Your task to perform on an android device: check storage Image 0: 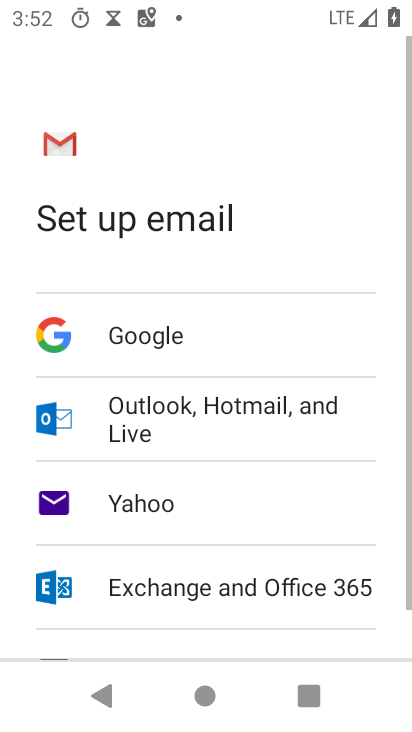
Step 0: press home button
Your task to perform on an android device: check storage Image 1: 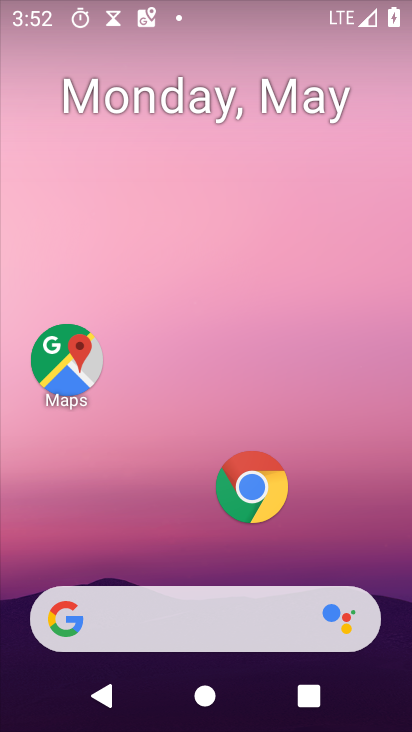
Step 1: drag from (178, 529) to (187, 16)
Your task to perform on an android device: check storage Image 2: 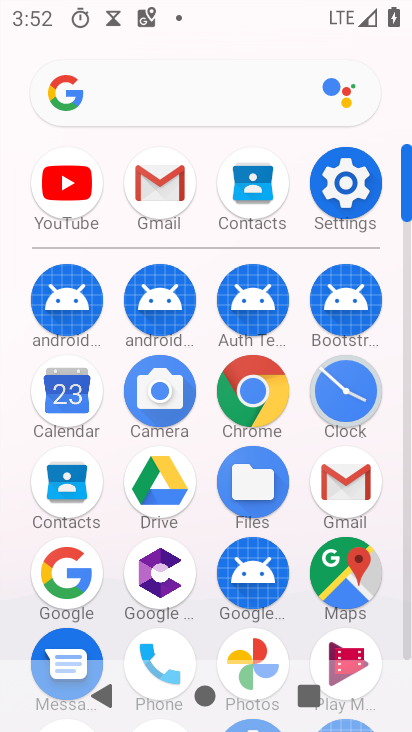
Step 2: click (347, 184)
Your task to perform on an android device: check storage Image 3: 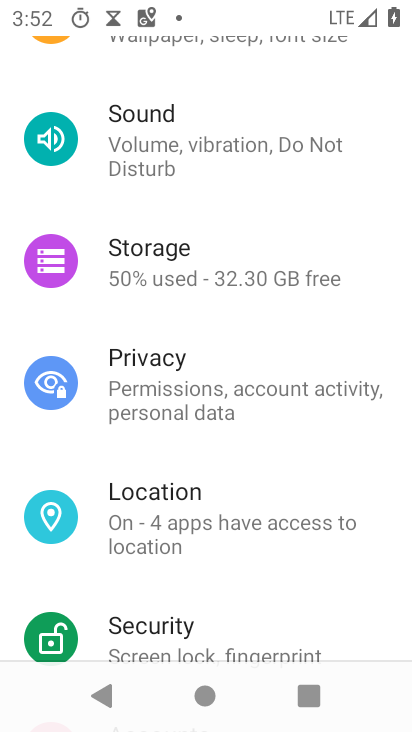
Step 3: click (128, 273)
Your task to perform on an android device: check storage Image 4: 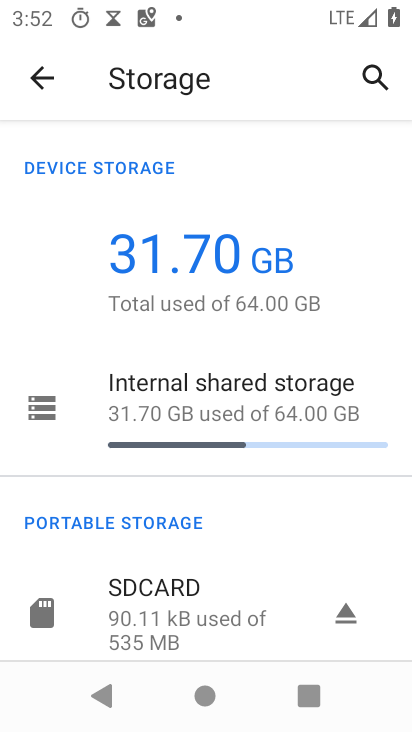
Step 4: task complete